Your task to perform on an android device: open a bookmark in the chrome app Image 0: 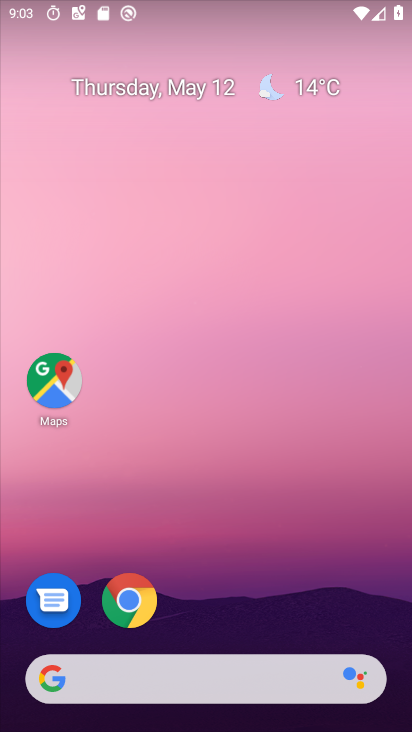
Step 0: drag from (288, 641) to (184, 218)
Your task to perform on an android device: open a bookmark in the chrome app Image 1: 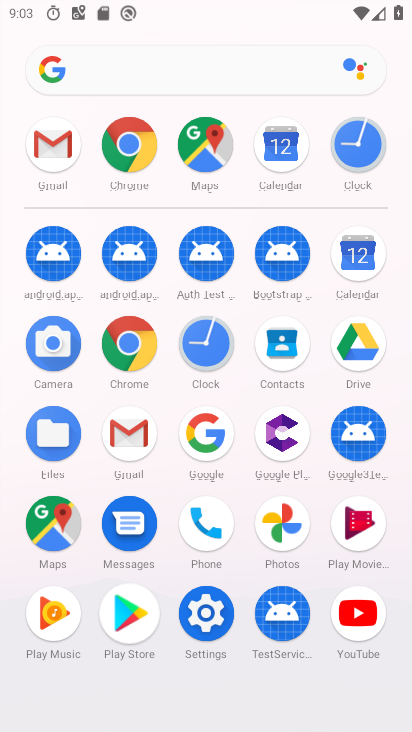
Step 1: click (132, 137)
Your task to perform on an android device: open a bookmark in the chrome app Image 2: 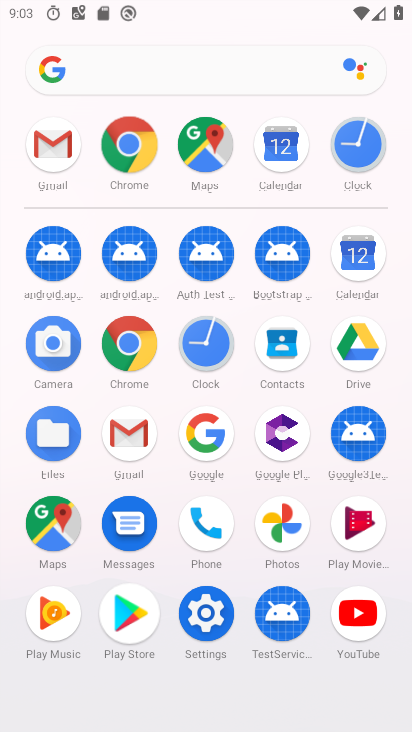
Step 2: click (132, 137)
Your task to perform on an android device: open a bookmark in the chrome app Image 3: 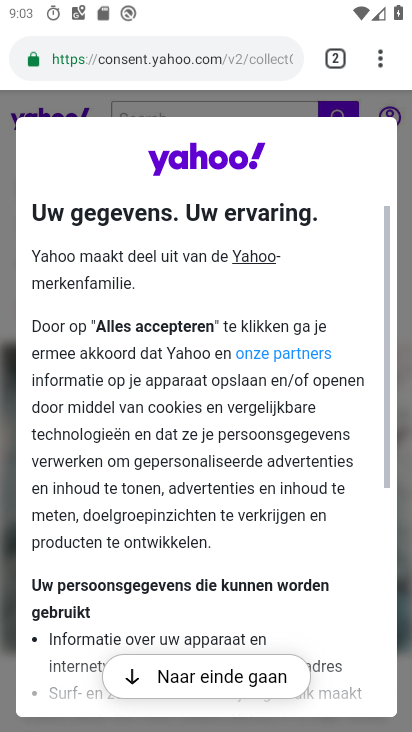
Step 3: drag from (215, 494) to (240, 201)
Your task to perform on an android device: open a bookmark in the chrome app Image 4: 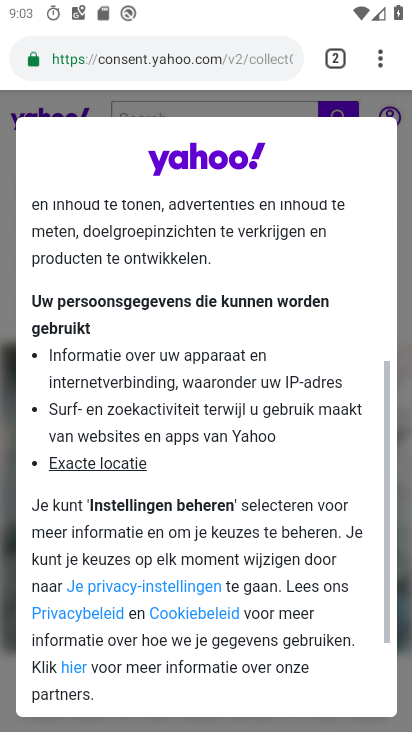
Step 4: drag from (375, 61) to (182, 196)
Your task to perform on an android device: open a bookmark in the chrome app Image 5: 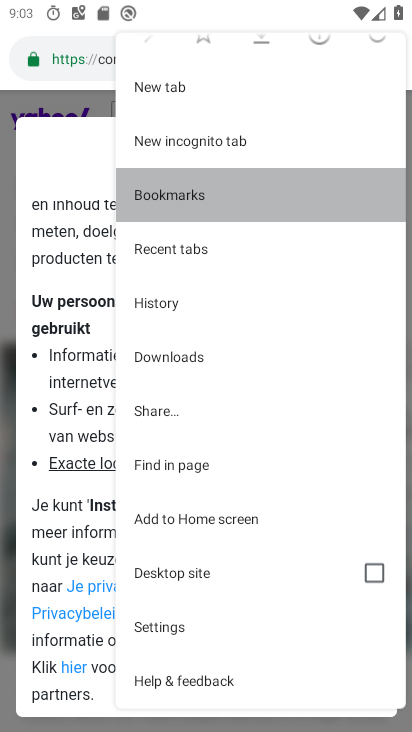
Step 5: click (182, 196)
Your task to perform on an android device: open a bookmark in the chrome app Image 6: 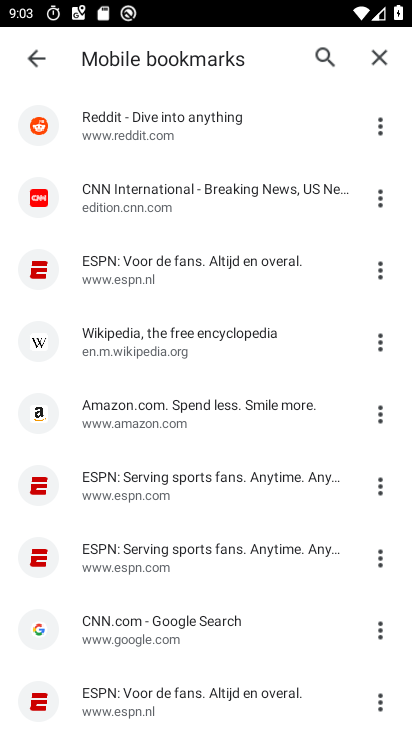
Step 6: task complete